Your task to perform on an android device: Open location settings Image 0: 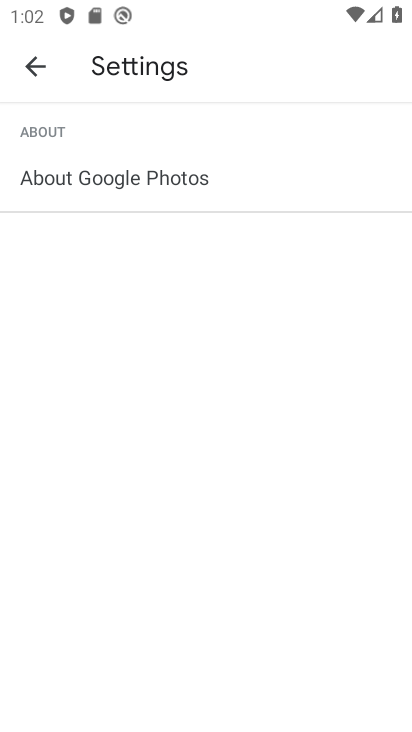
Step 0: press home button
Your task to perform on an android device: Open location settings Image 1: 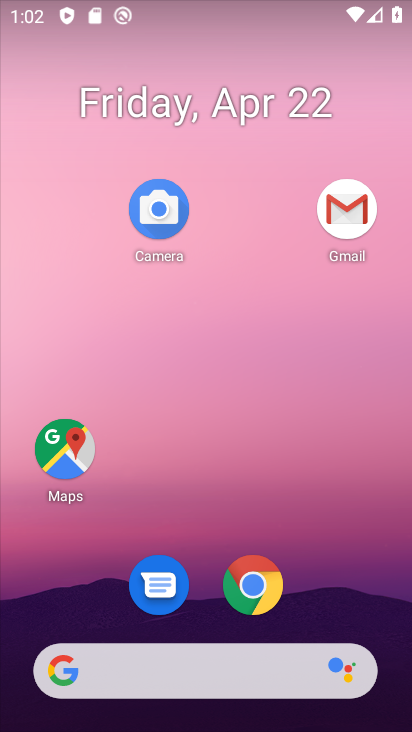
Step 1: drag from (326, 534) to (266, 142)
Your task to perform on an android device: Open location settings Image 2: 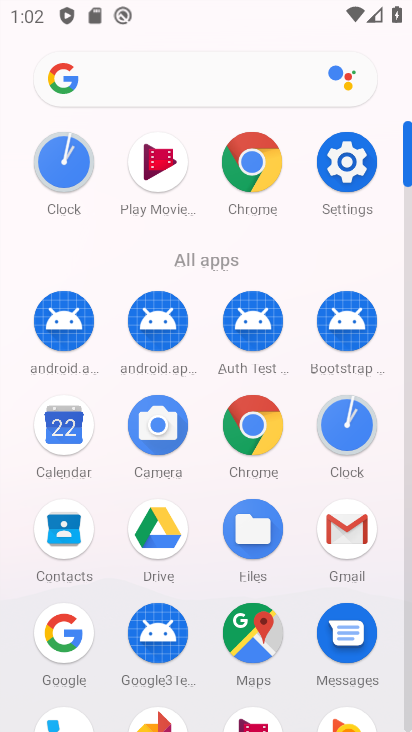
Step 2: click (354, 149)
Your task to perform on an android device: Open location settings Image 3: 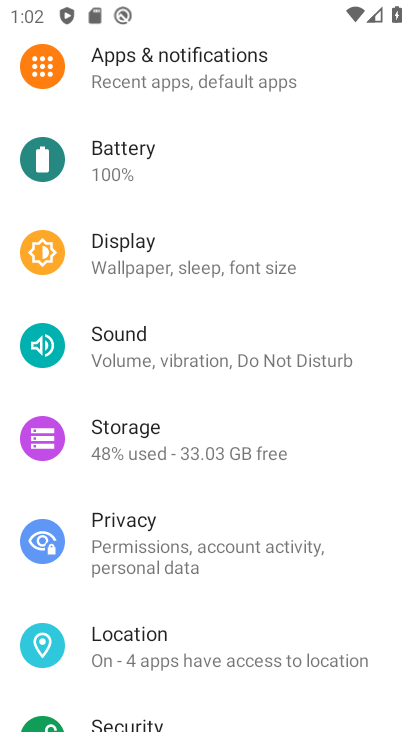
Step 3: click (228, 648)
Your task to perform on an android device: Open location settings Image 4: 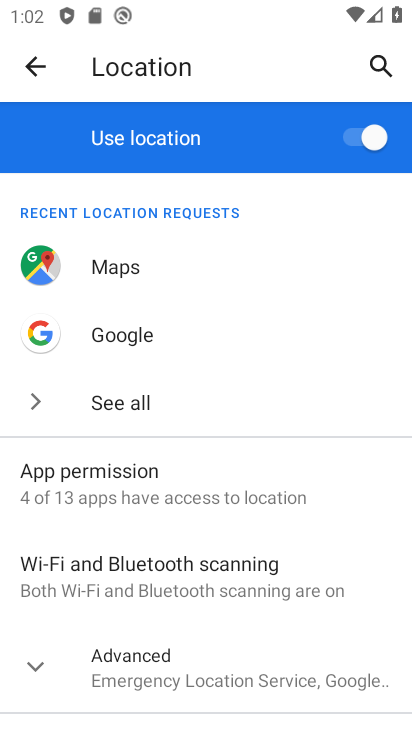
Step 4: task complete